Your task to perform on an android device: turn on javascript in the chrome app Image 0: 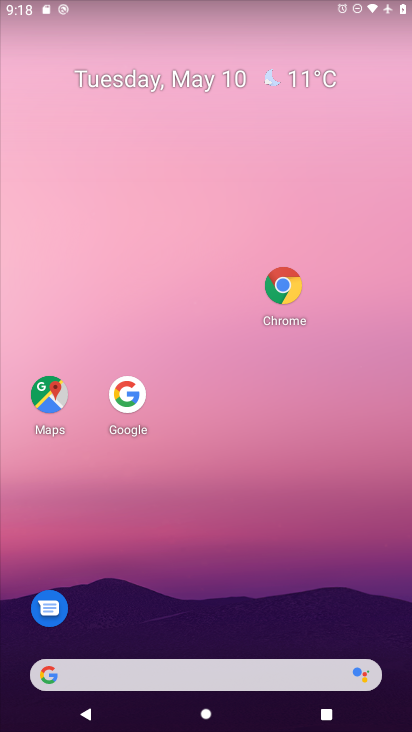
Step 0: drag from (268, 658) to (404, 415)
Your task to perform on an android device: turn on javascript in the chrome app Image 1: 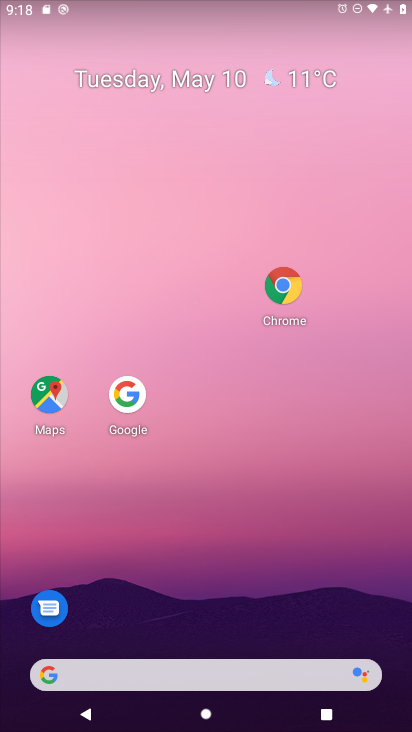
Step 1: drag from (220, 678) to (317, 205)
Your task to perform on an android device: turn on javascript in the chrome app Image 2: 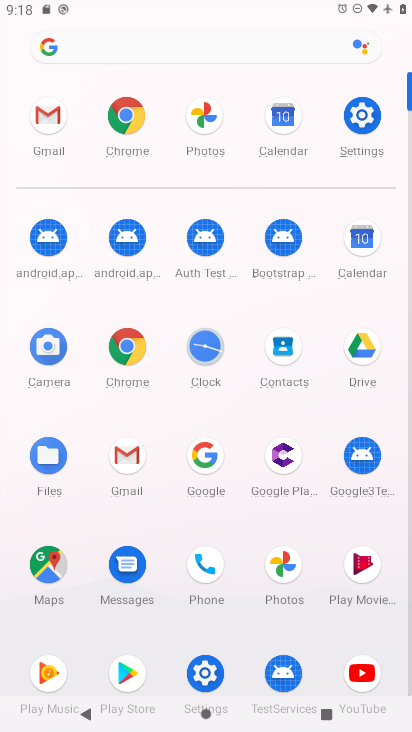
Step 2: click (132, 117)
Your task to perform on an android device: turn on javascript in the chrome app Image 3: 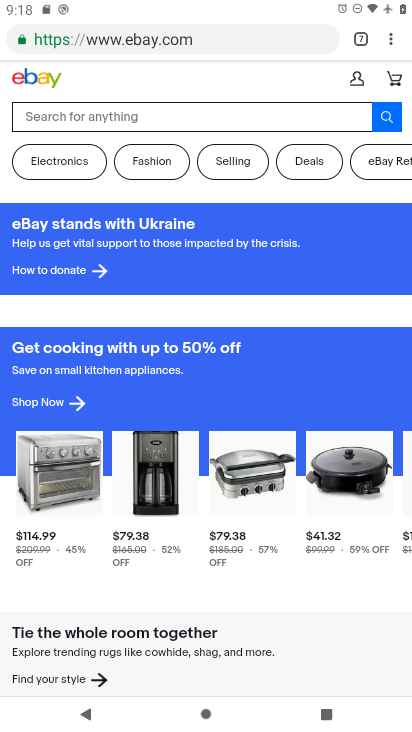
Step 3: drag from (390, 45) to (268, 469)
Your task to perform on an android device: turn on javascript in the chrome app Image 4: 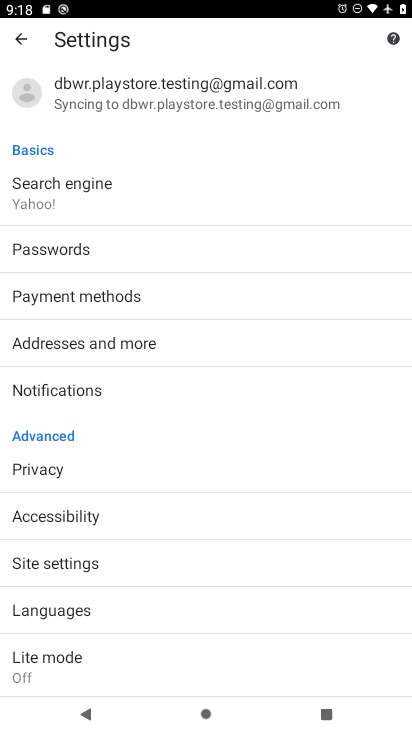
Step 4: click (70, 561)
Your task to perform on an android device: turn on javascript in the chrome app Image 5: 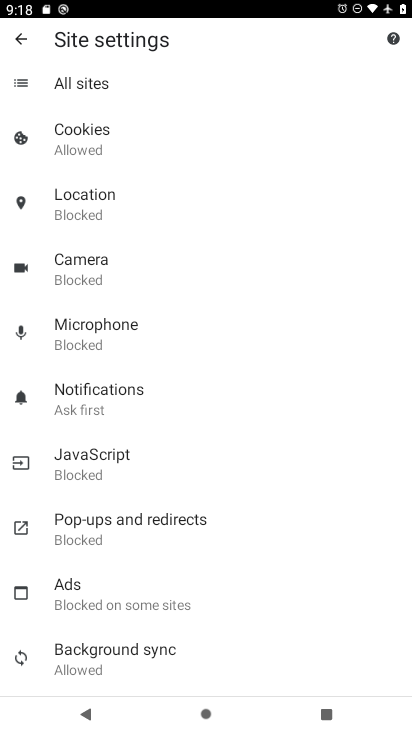
Step 5: click (75, 467)
Your task to perform on an android device: turn on javascript in the chrome app Image 6: 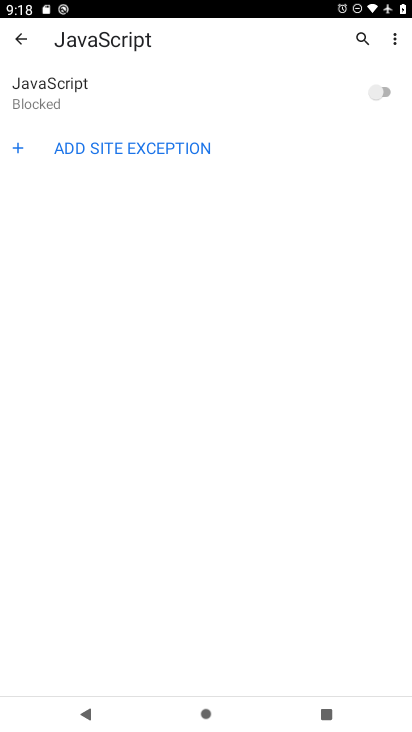
Step 6: click (388, 87)
Your task to perform on an android device: turn on javascript in the chrome app Image 7: 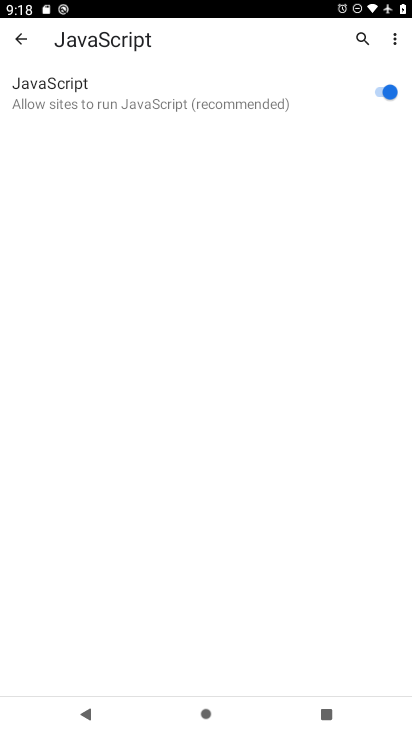
Step 7: task complete